Your task to perform on an android device: Open eBay Image 0: 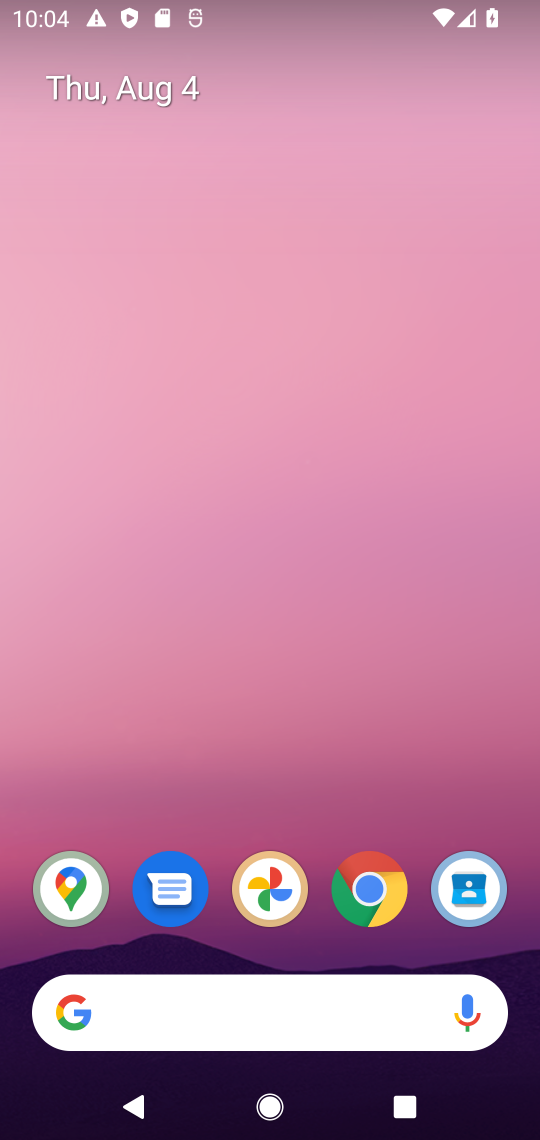
Step 0: press home button
Your task to perform on an android device: Open eBay Image 1: 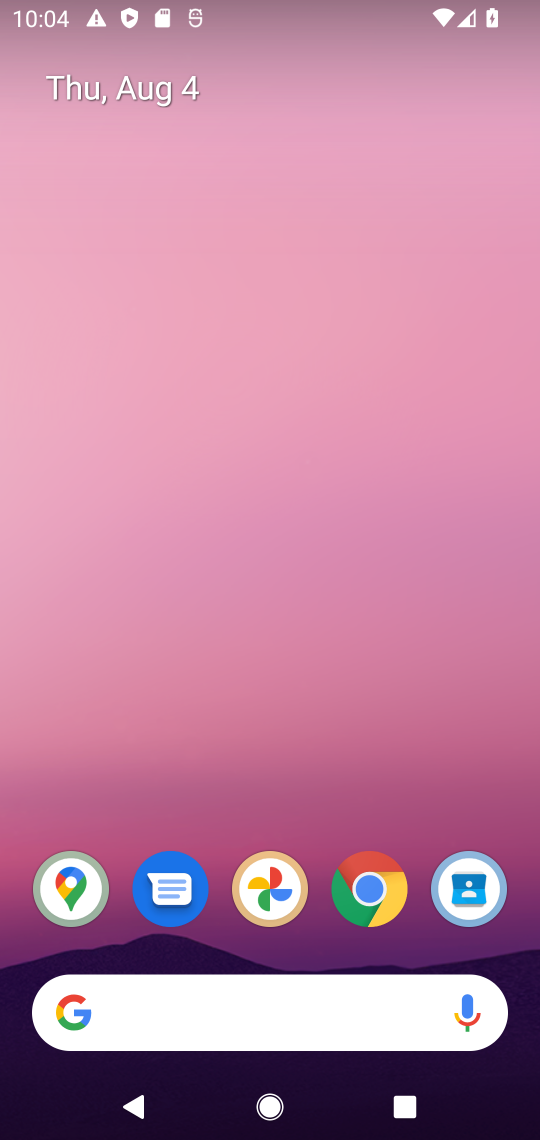
Step 1: drag from (294, 804) to (297, 236)
Your task to perform on an android device: Open eBay Image 2: 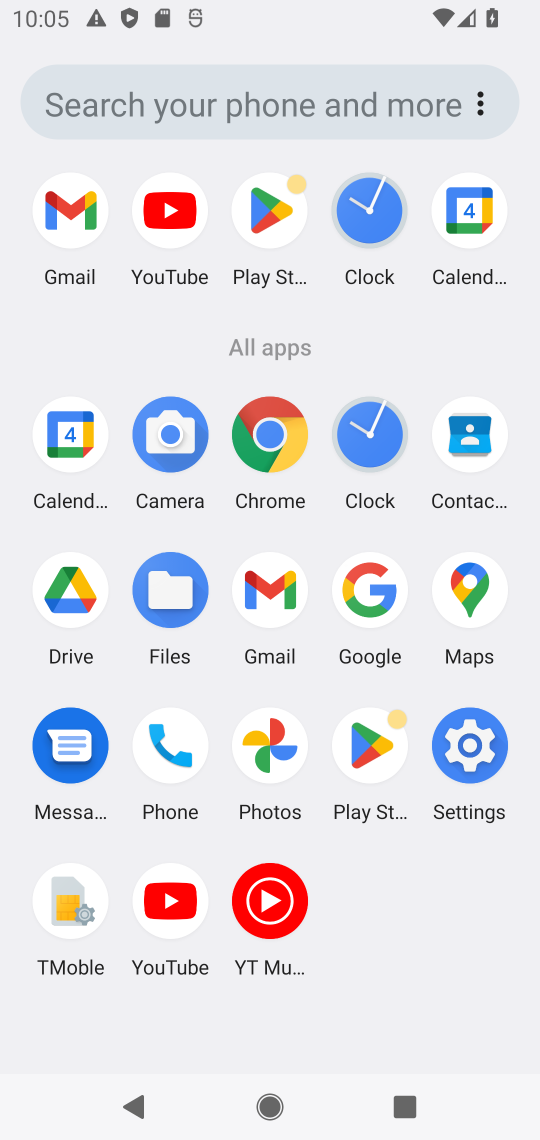
Step 2: click (293, 430)
Your task to perform on an android device: Open eBay Image 3: 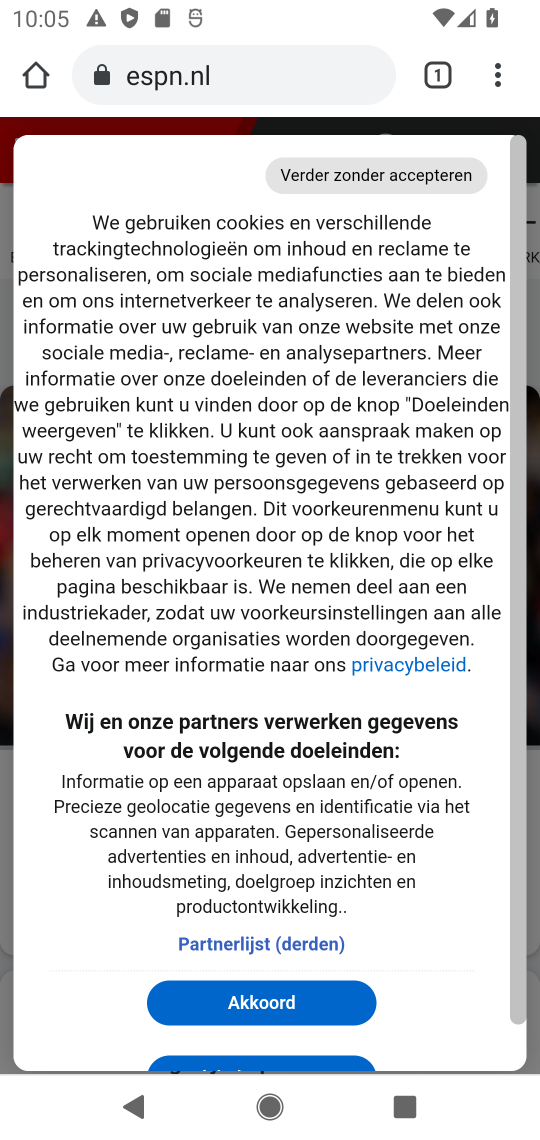
Step 3: click (260, 76)
Your task to perform on an android device: Open eBay Image 4: 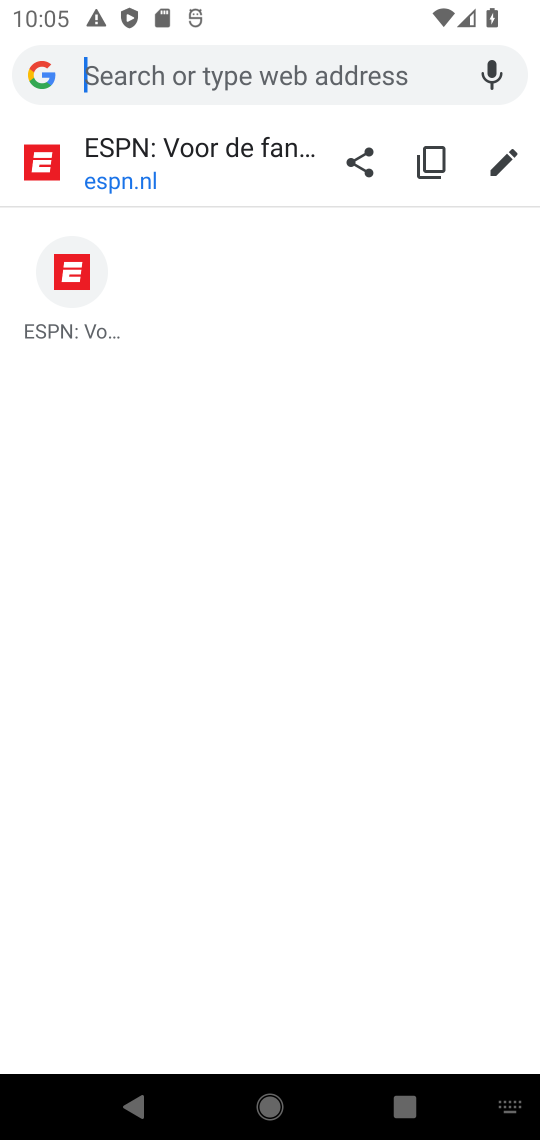
Step 4: type "ebay"
Your task to perform on an android device: Open eBay Image 5: 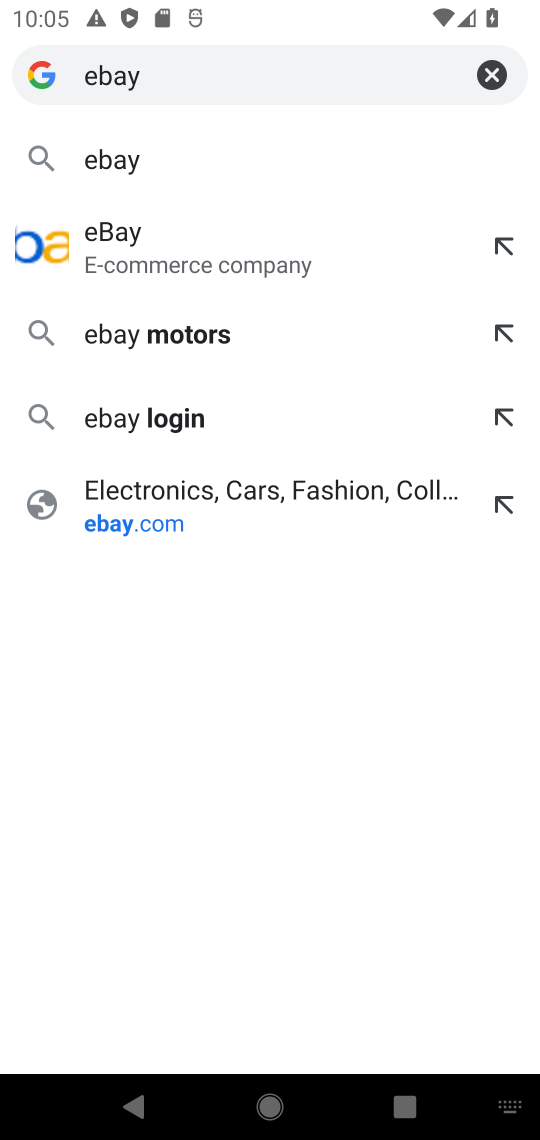
Step 5: click (168, 249)
Your task to perform on an android device: Open eBay Image 6: 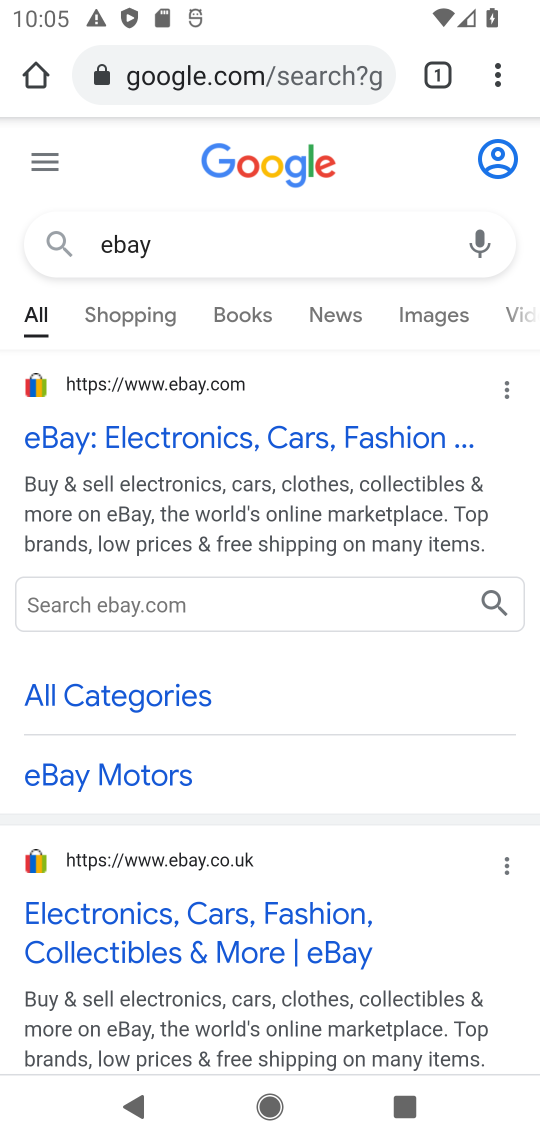
Step 6: task complete